Your task to perform on an android device: Open battery settings Image 0: 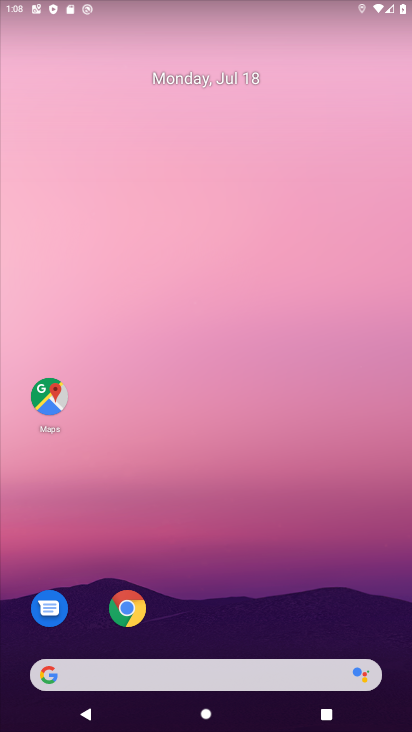
Step 0: drag from (341, 630) to (257, 68)
Your task to perform on an android device: Open battery settings Image 1: 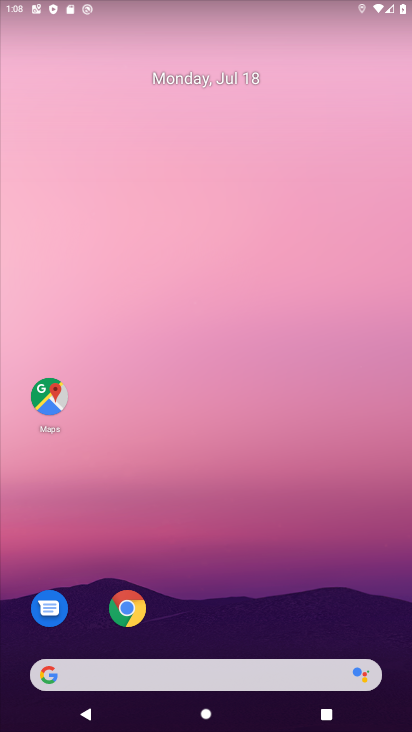
Step 1: drag from (383, 612) to (309, 154)
Your task to perform on an android device: Open battery settings Image 2: 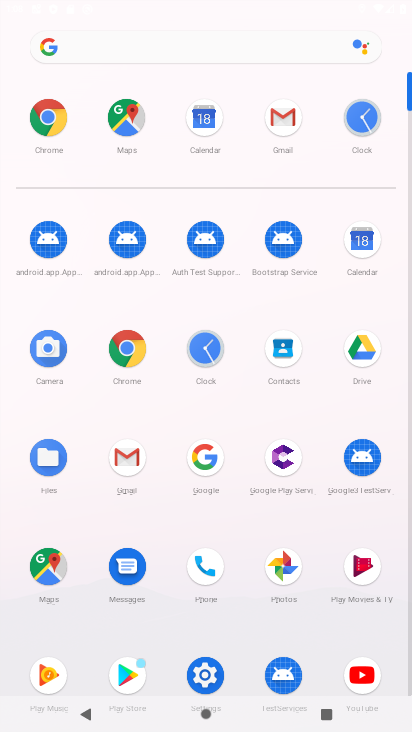
Step 2: click (207, 674)
Your task to perform on an android device: Open battery settings Image 3: 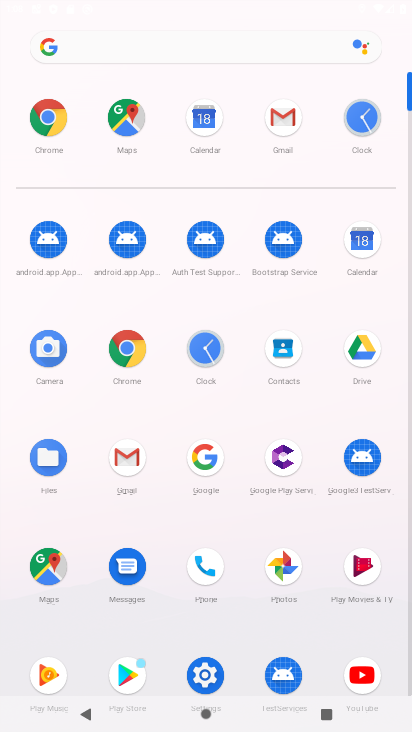
Step 3: click (363, 125)
Your task to perform on an android device: Open battery settings Image 4: 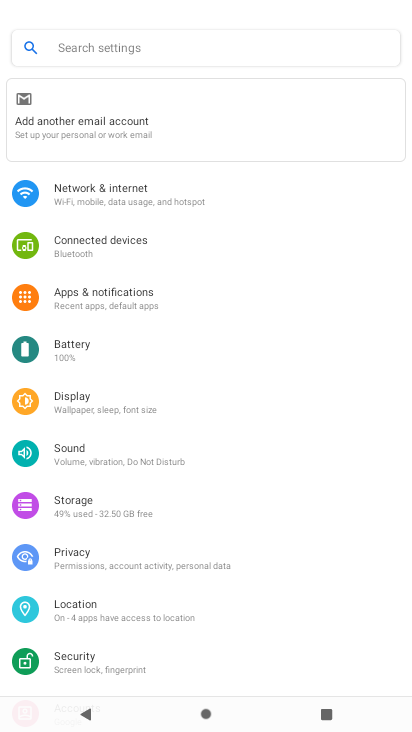
Step 4: click (132, 352)
Your task to perform on an android device: Open battery settings Image 5: 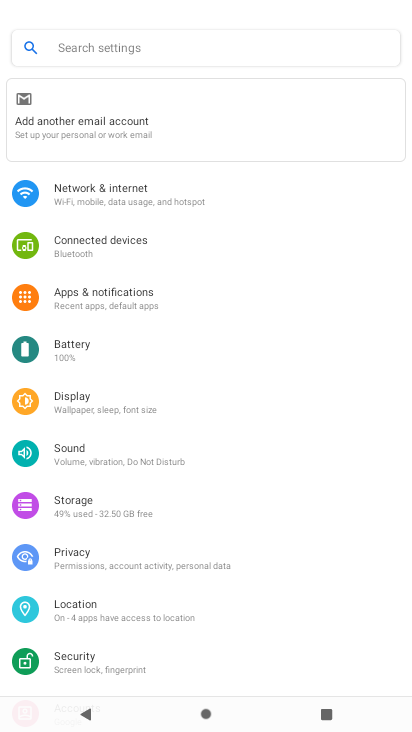
Step 5: click (174, 337)
Your task to perform on an android device: Open battery settings Image 6: 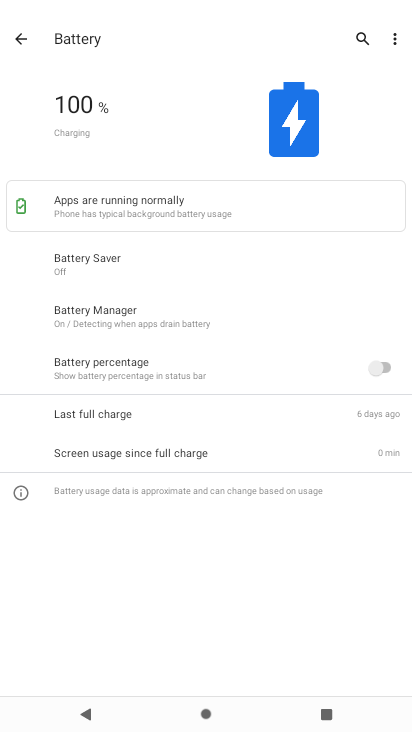
Step 6: task complete
Your task to perform on an android device: Open battery settings Image 7: 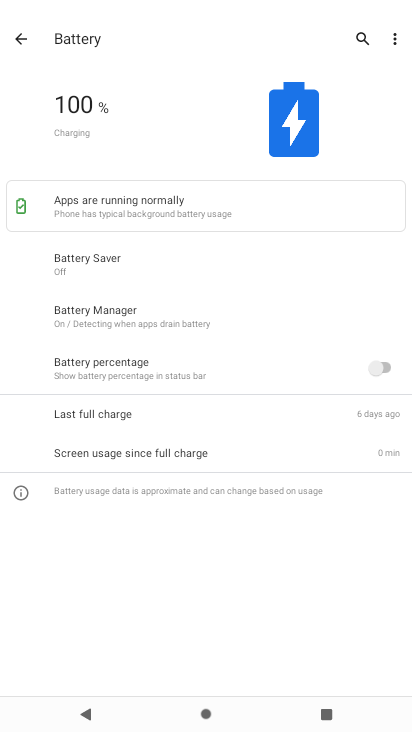
Step 7: task complete